Your task to perform on an android device: What's the weather going to be tomorrow? Image 0: 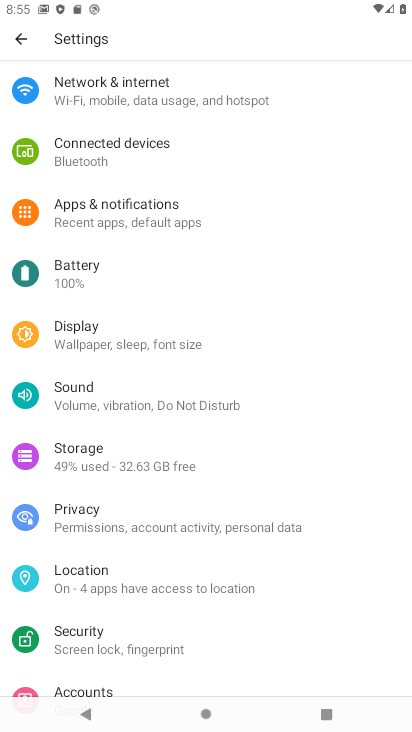
Step 0: press home button
Your task to perform on an android device: What's the weather going to be tomorrow? Image 1: 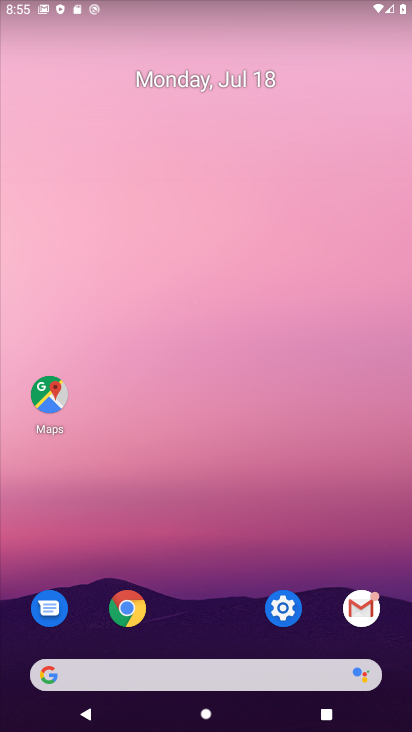
Step 1: click (164, 672)
Your task to perform on an android device: What's the weather going to be tomorrow? Image 2: 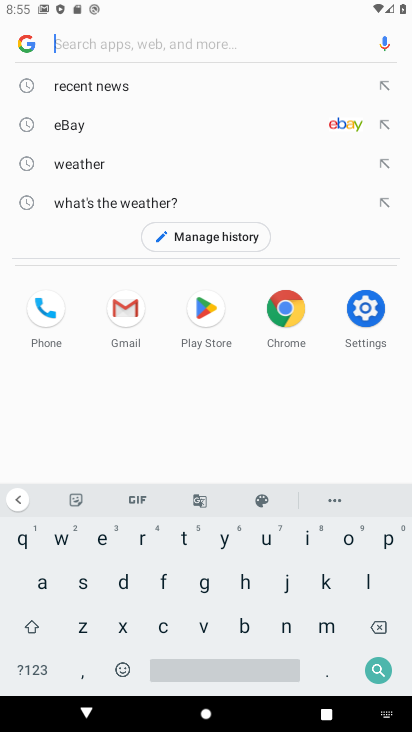
Step 2: click (96, 163)
Your task to perform on an android device: What's the weather going to be tomorrow? Image 3: 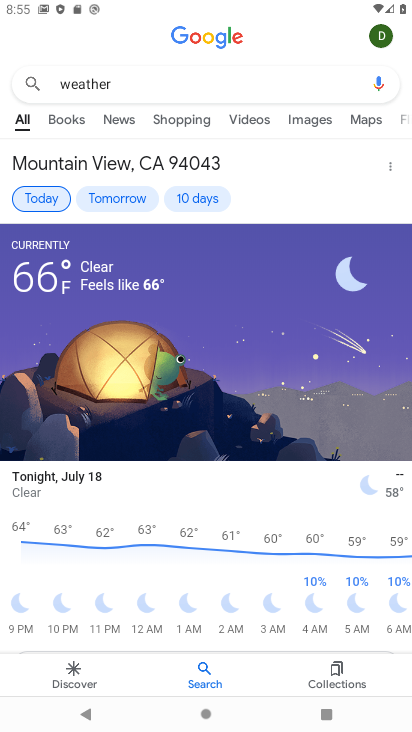
Step 3: click (98, 193)
Your task to perform on an android device: What's the weather going to be tomorrow? Image 4: 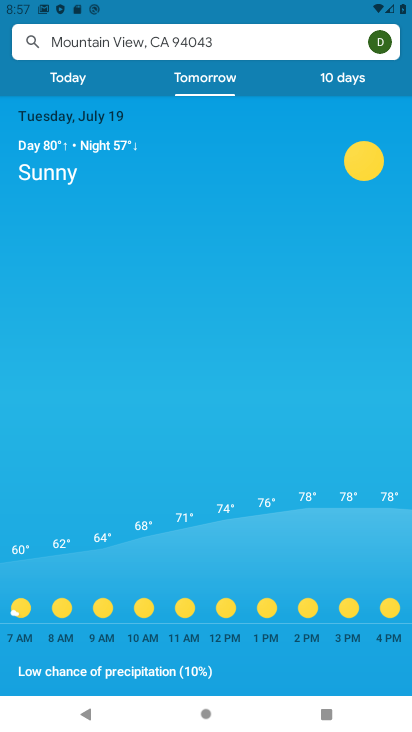
Step 4: task complete